Your task to perform on an android device: check storage Image 0: 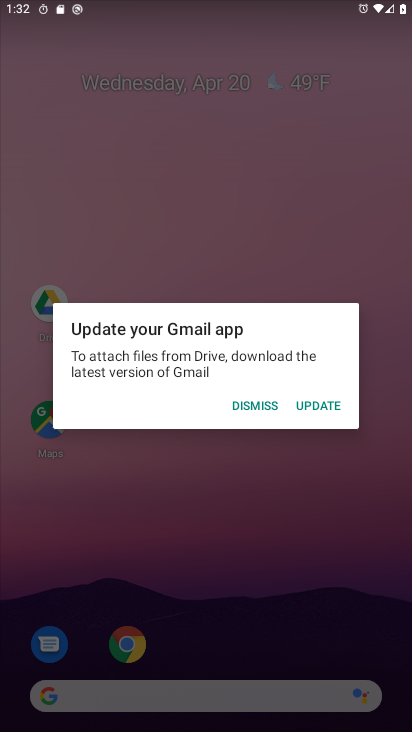
Step 0: press home button
Your task to perform on an android device: check storage Image 1: 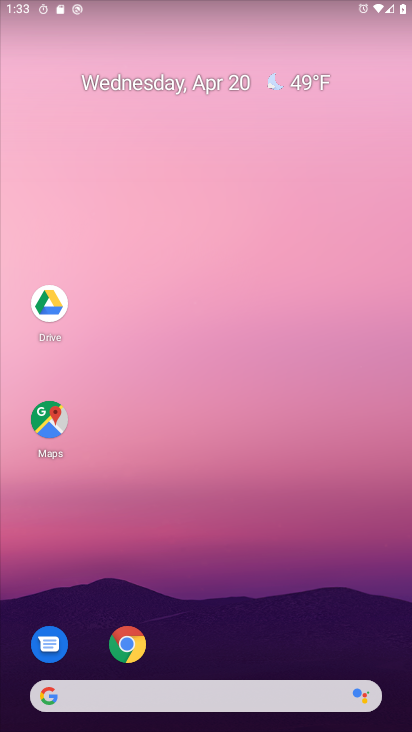
Step 1: drag from (207, 632) to (207, 51)
Your task to perform on an android device: check storage Image 2: 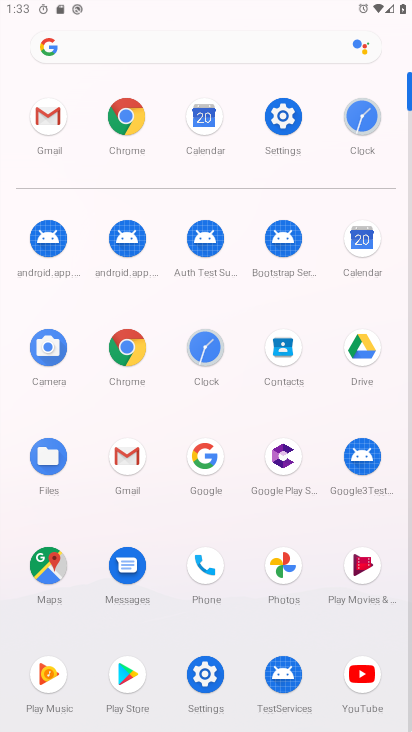
Step 2: click (285, 122)
Your task to perform on an android device: check storage Image 3: 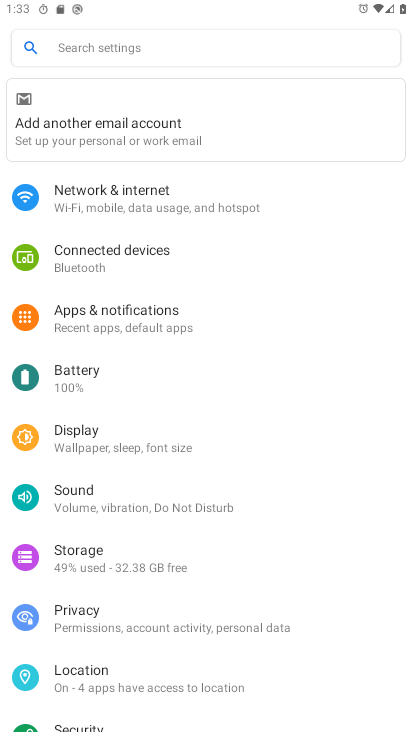
Step 3: click (117, 551)
Your task to perform on an android device: check storage Image 4: 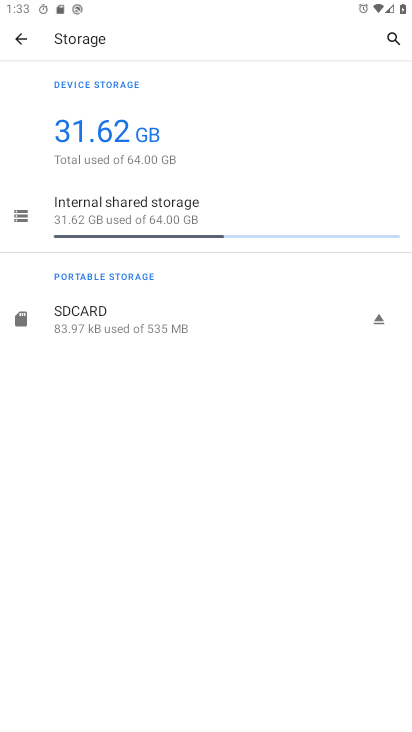
Step 4: task complete